Your task to perform on an android device: Open ESPN.com Image 0: 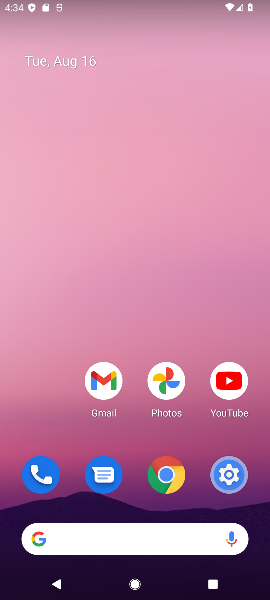
Step 0: drag from (198, 491) to (109, 36)
Your task to perform on an android device: Open ESPN.com Image 1: 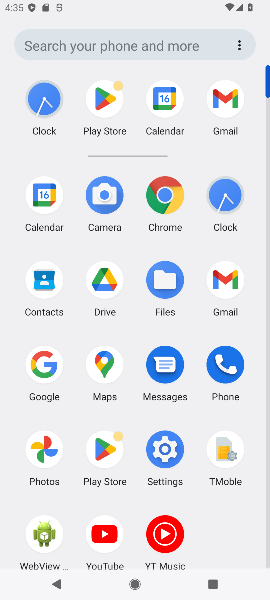
Step 1: click (41, 360)
Your task to perform on an android device: Open ESPN.com Image 2: 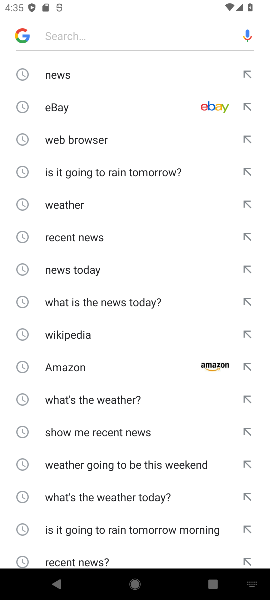
Step 2: type " ESPN.com"
Your task to perform on an android device: Open ESPN.com Image 3: 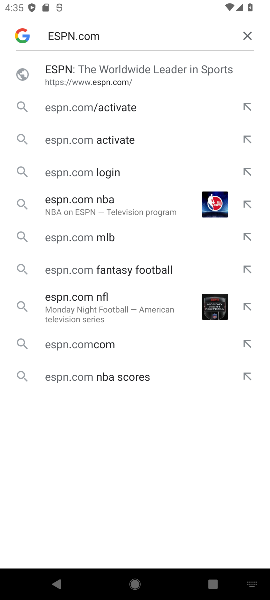
Step 3: click (165, 68)
Your task to perform on an android device: Open ESPN.com Image 4: 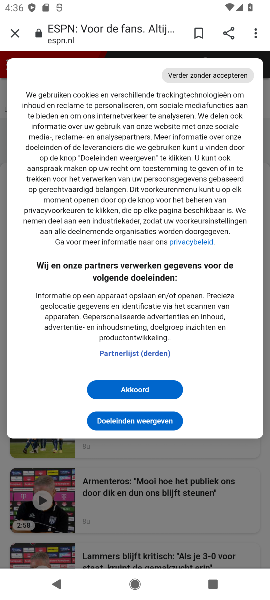
Step 4: task complete